Your task to perform on an android device: open a bookmark in the chrome app Image 0: 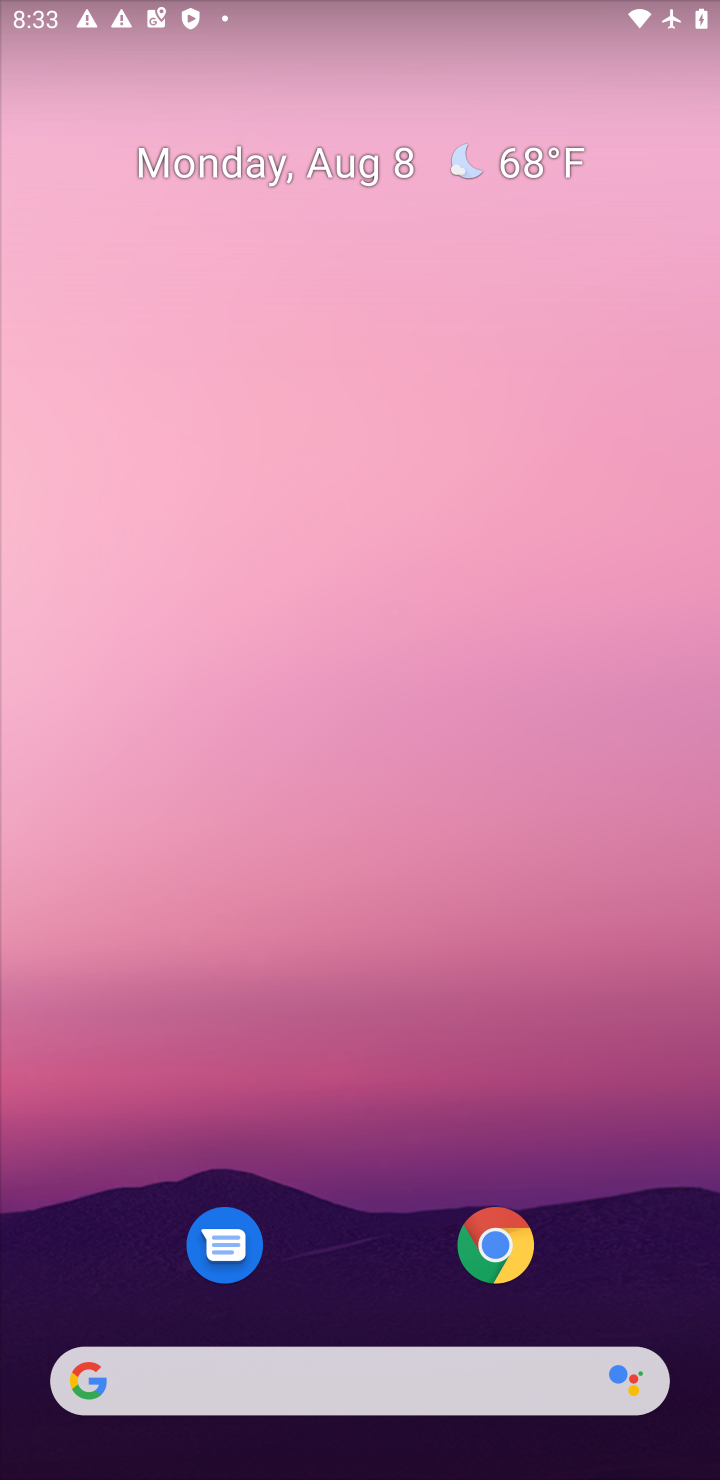
Step 0: drag from (340, 1145) to (551, 14)
Your task to perform on an android device: open a bookmark in the chrome app Image 1: 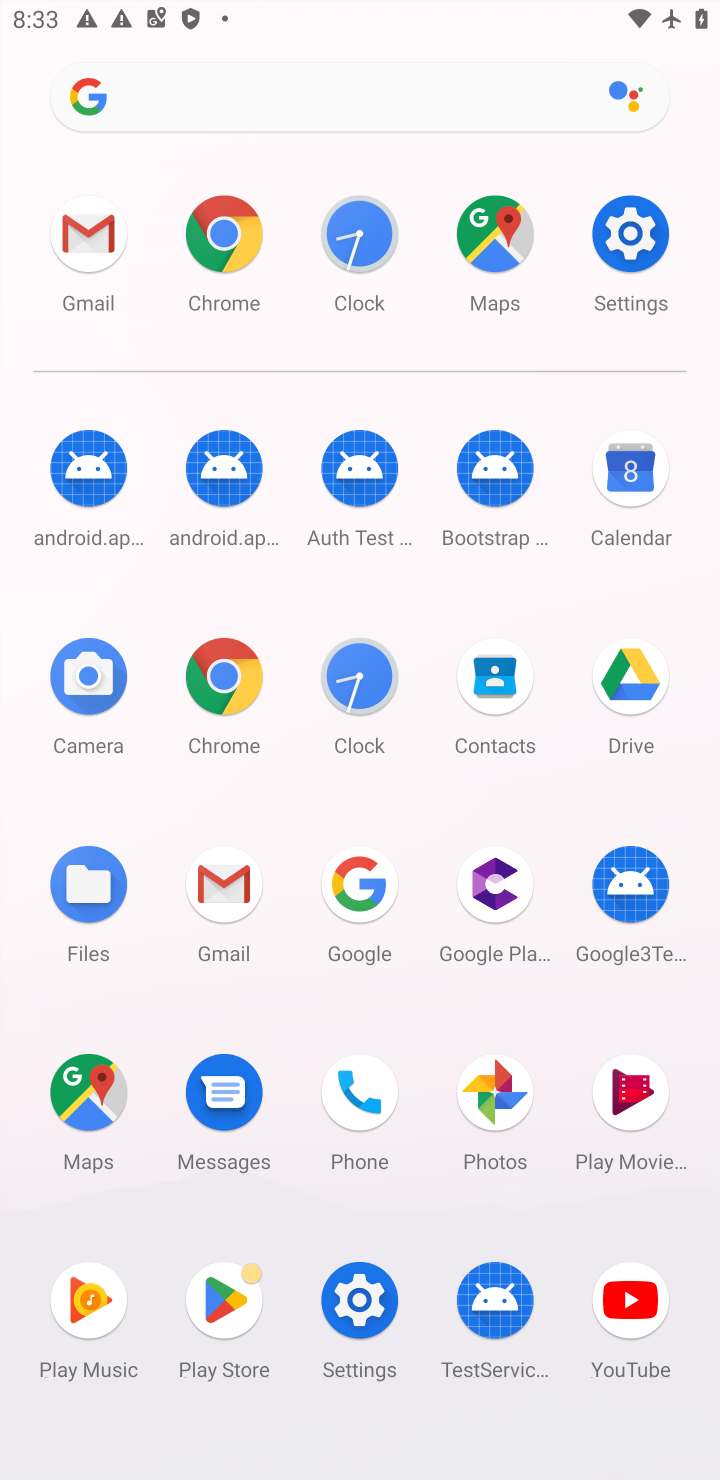
Step 1: click (191, 685)
Your task to perform on an android device: open a bookmark in the chrome app Image 2: 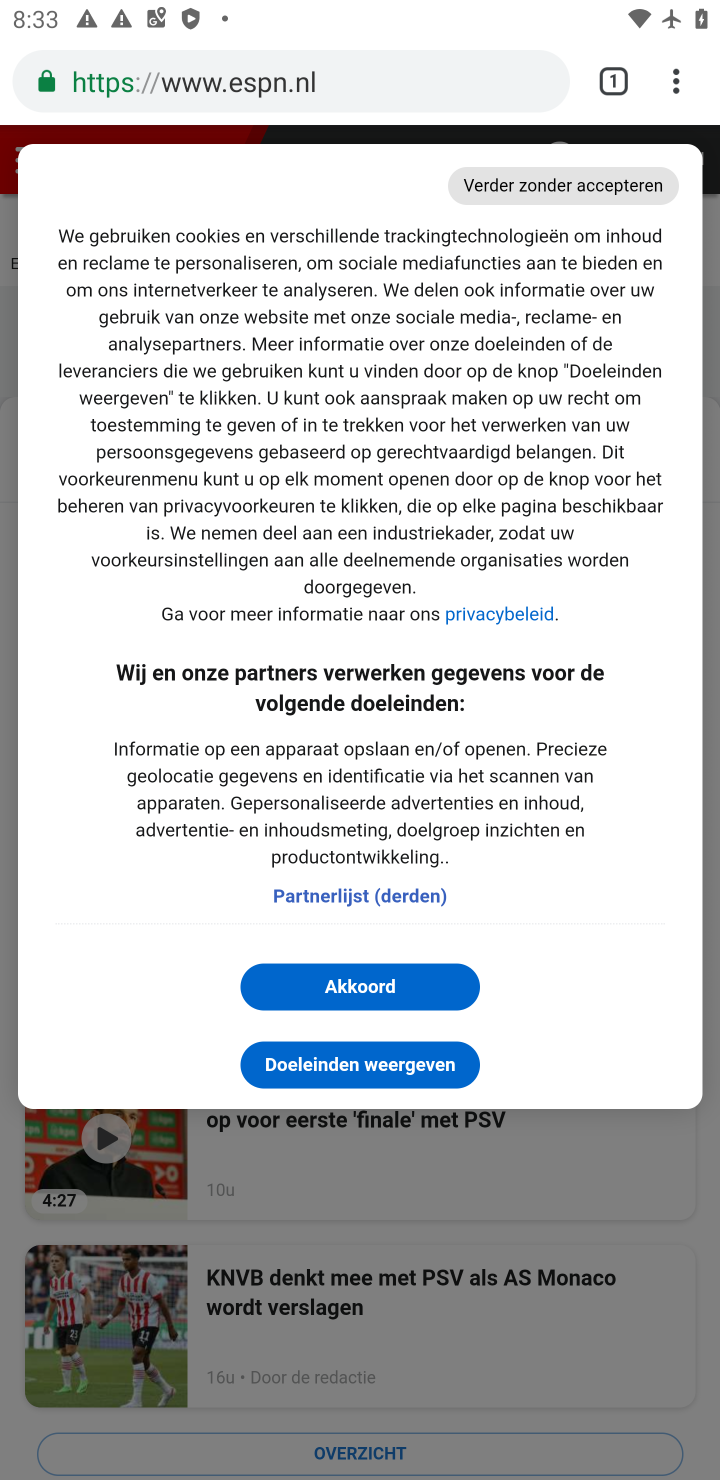
Step 2: click (672, 73)
Your task to perform on an android device: open a bookmark in the chrome app Image 3: 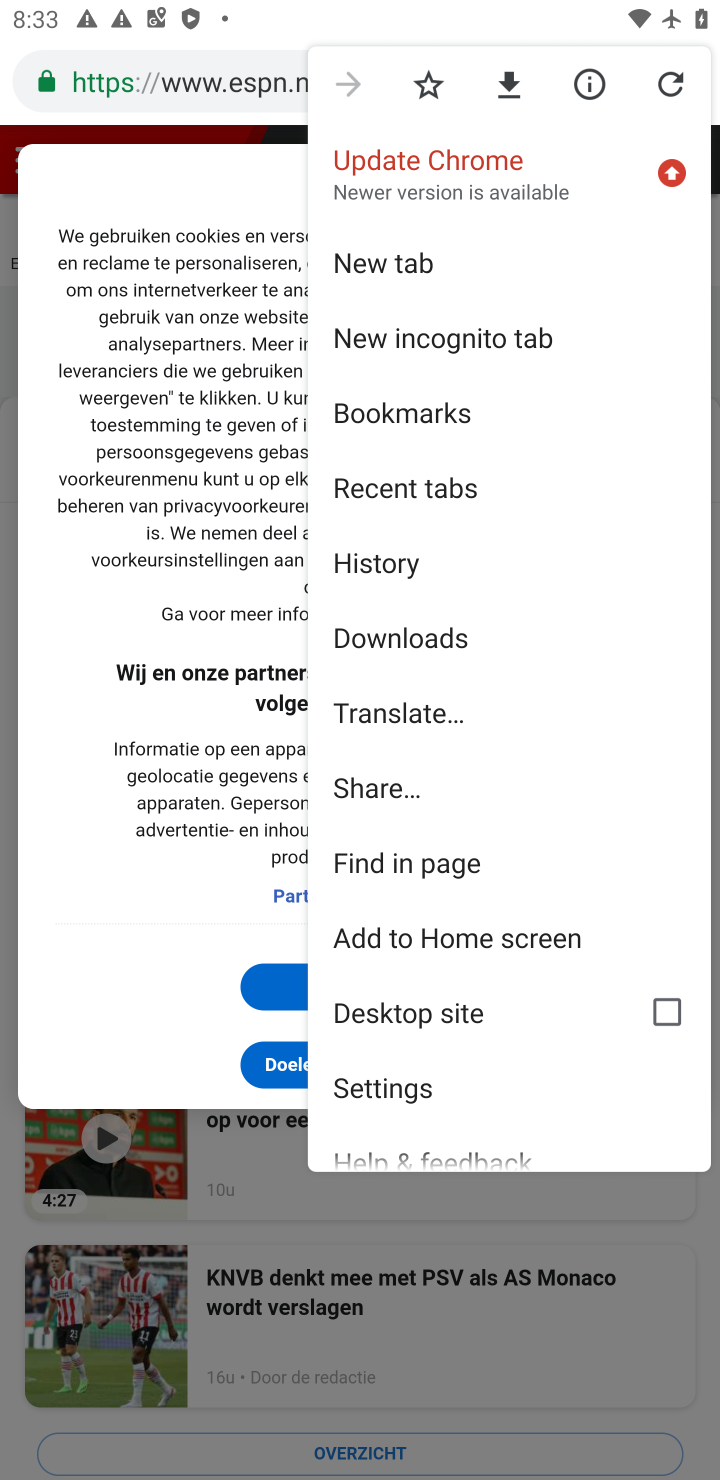
Step 3: click (464, 420)
Your task to perform on an android device: open a bookmark in the chrome app Image 4: 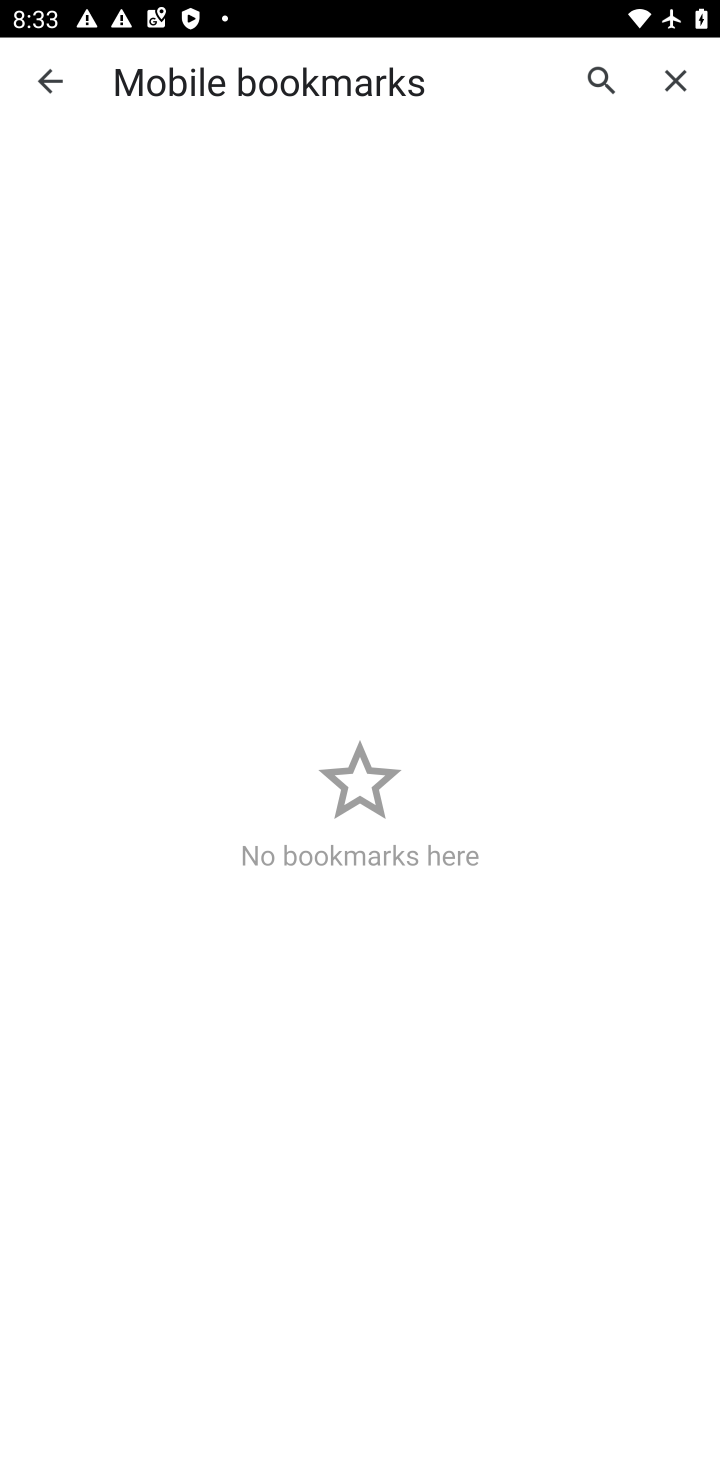
Step 4: task complete